Your task to perform on an android device: refresh tabs in the chrome app Image 0: 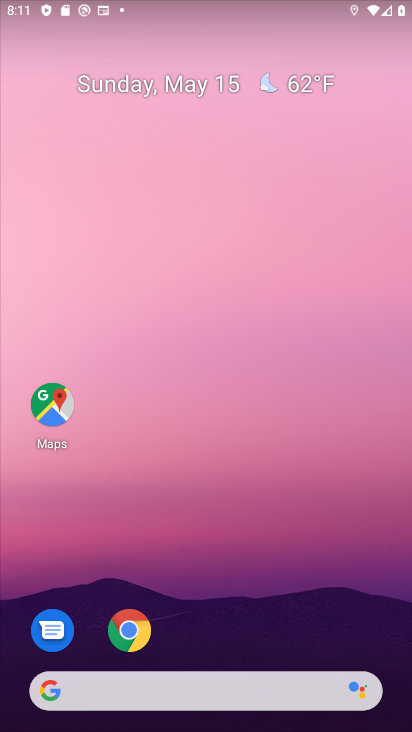
Step 0: click (116, 628)
Your task to perform on an android device: refresh tabs in the chrome app Image 1: 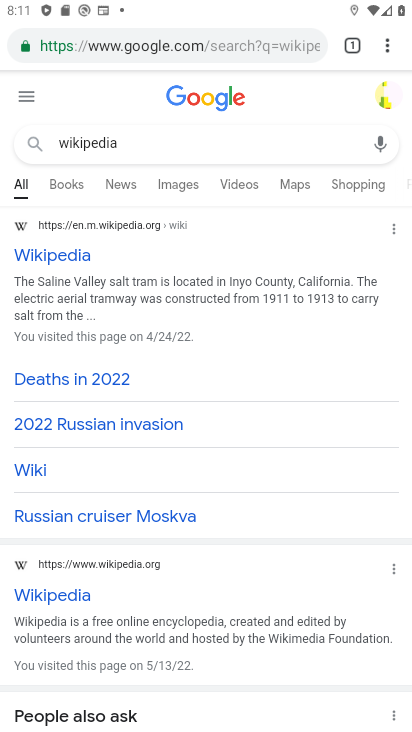
Step 1: click (396, 54)
Your task to perform on an android device: refresh tabs in the chrome app Image 2: 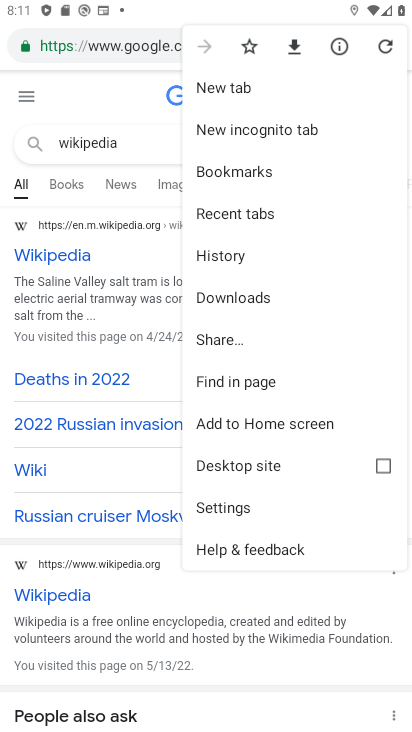
Step 2: click (382, 51)
Your task to perform on an android device: refresh tabs in the chrome app Image 3: 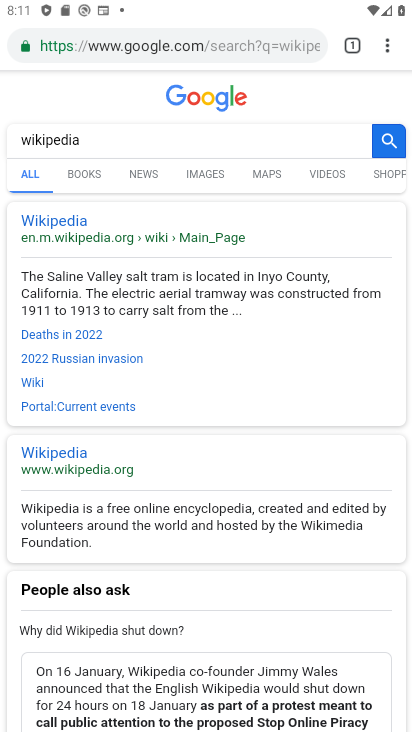
Step 3: task complete